Your task to perform on an android device: Open sound settings Image 0: 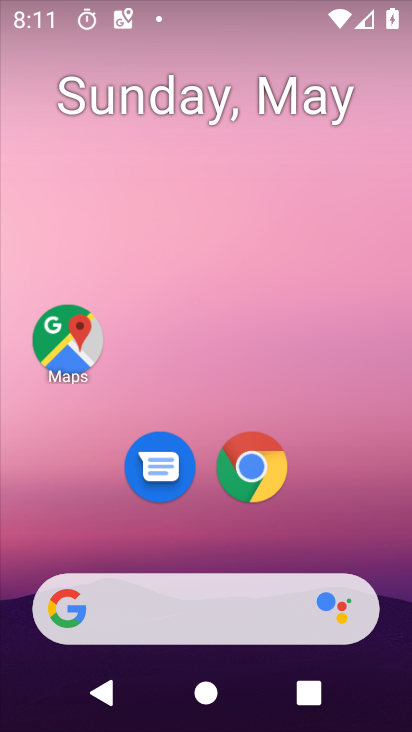
Step 0: click (238, 157)
Your task to perform on an android device: Open sound settings Image 1: 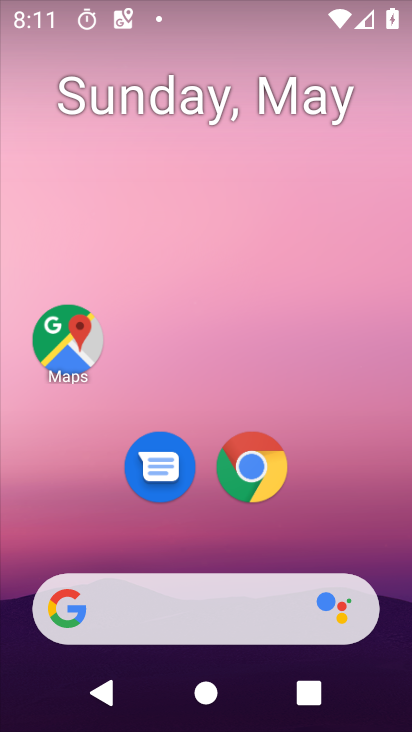
Step 1: drag from (49, 571) to (271, 111)
Your task to perform on an android device: Open sound settings Image 2: 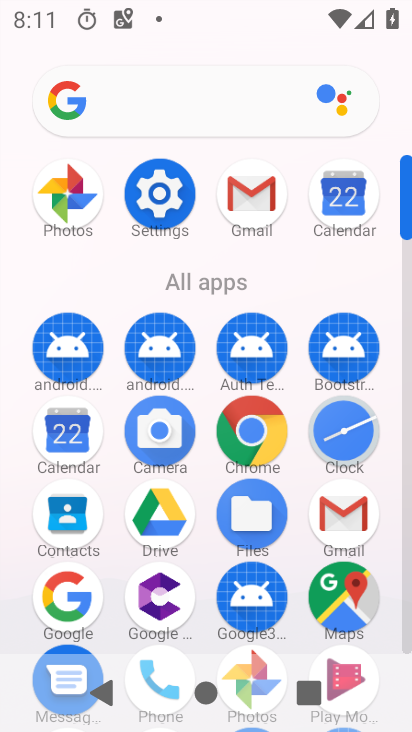
Step 2: click (180, 190)
Your task to perform on an android device: Open sound settings Image 3: 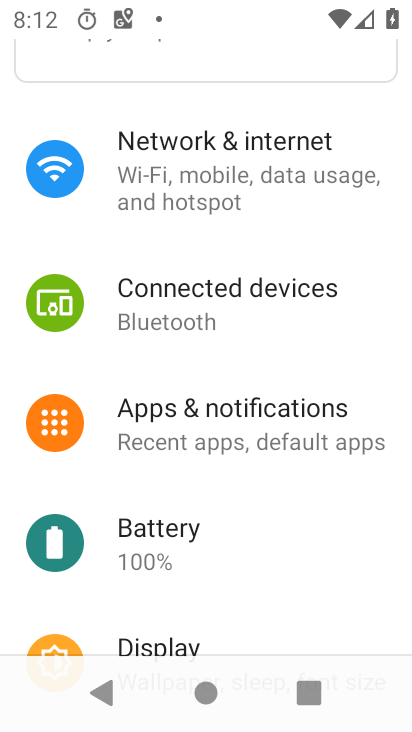
Step 3: drag from (15, 598) to (206, 204)
Your task to perform on an android device: Open sound settings Image 4: 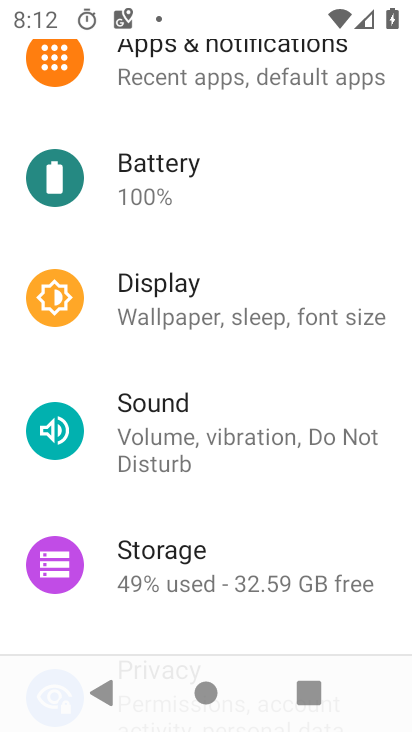
Step 4: click (184, 435)
Your task to perform on an android device: Open sound settings Image 5: 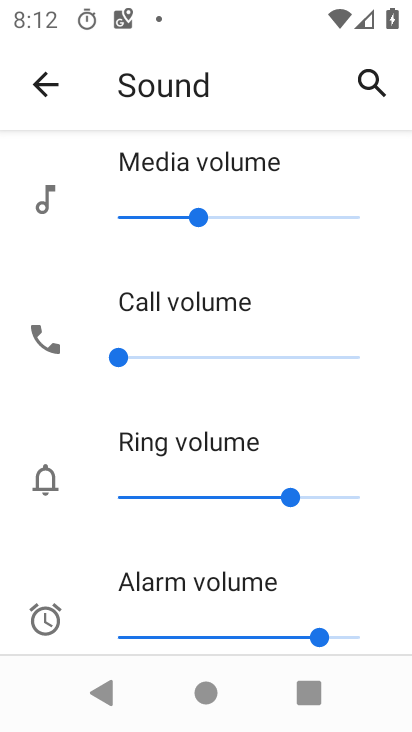
Step 5: task complete